Your task to perform on an android device: Go to Android settings Image 0: 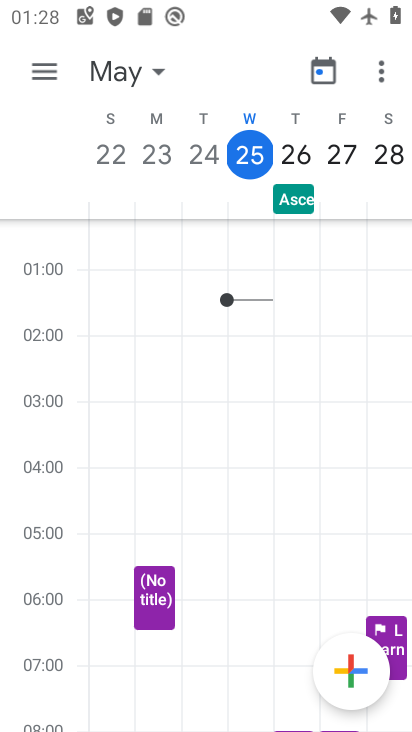
Step 0: press home button
Your task to perform on an android device: Go to Android settings Image 1: 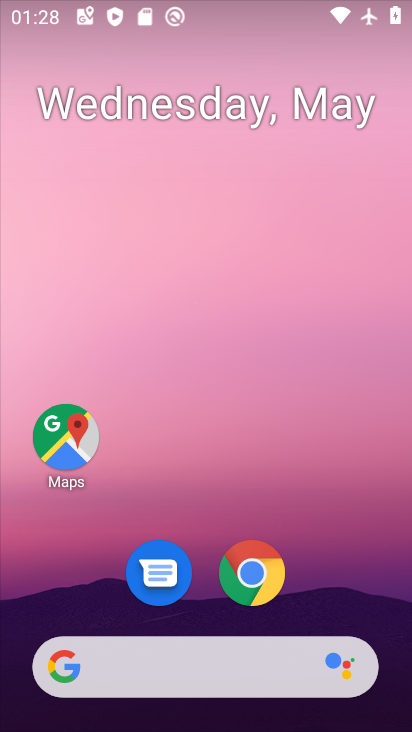
Step 1: drag from (196, 586) to (208, 191)
Your task to perform on an android device: Go to Android settings Image 2: 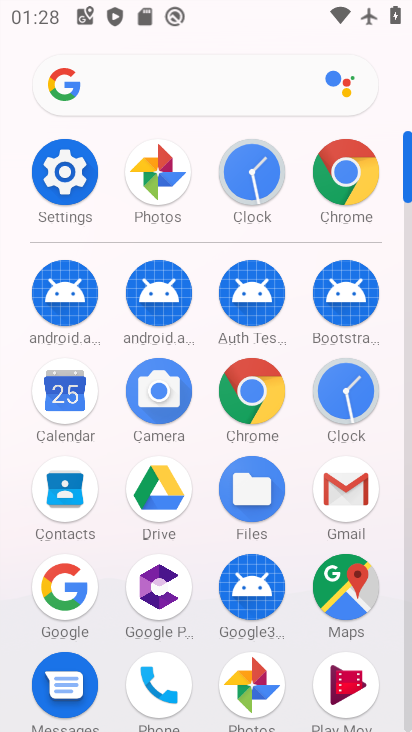
Step 2: click (59, 160)
Your task to perform on an android device: Go to Android settings Image 3: 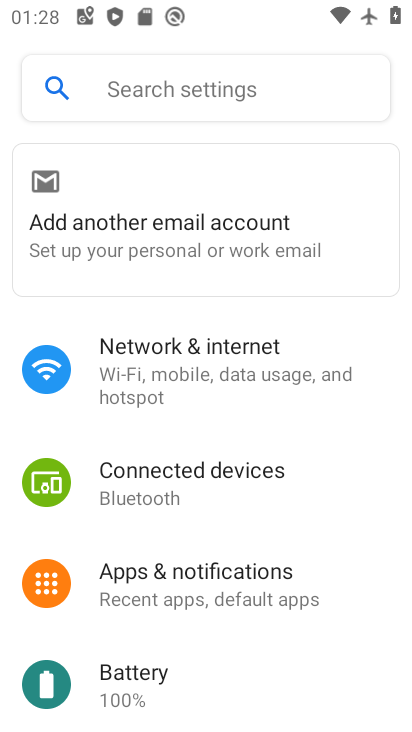
Step 3: task complete